Your task to perform on an android device: clear history in the chrome app Image 0: 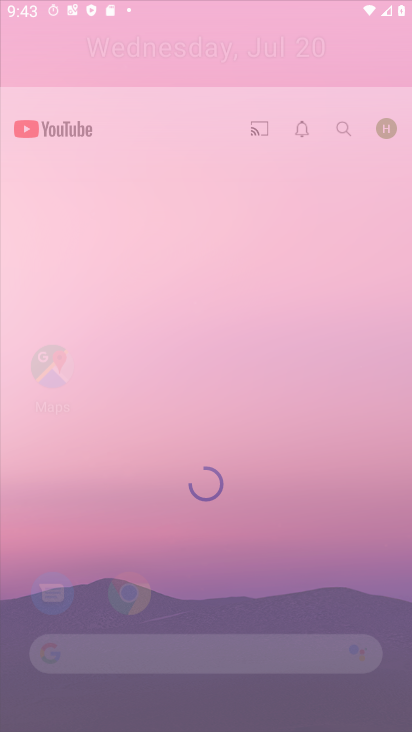
Step 0: click (236, 193)
Your task to perform on an android device: clear history in the chrome app Image 1: 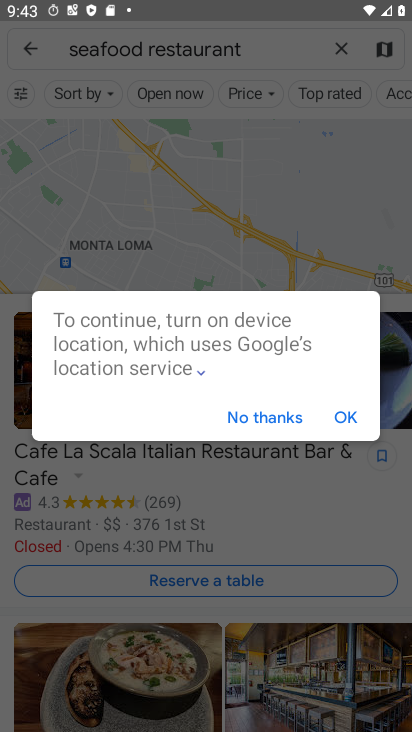
Step 1: click (341, 420)
Your task to perform on an android device: clear history in the chrome app Image 2: 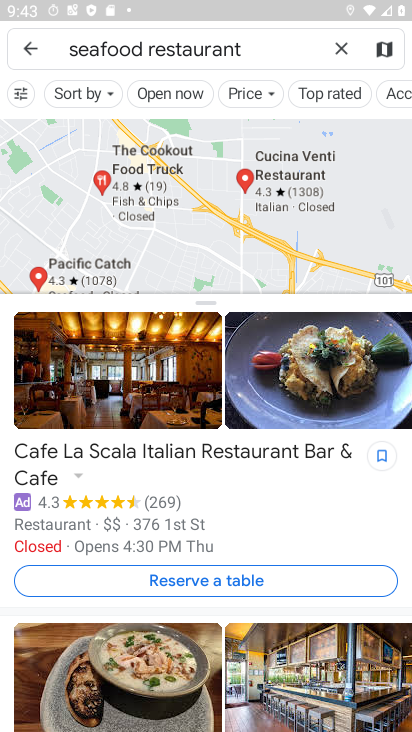
Step 2: press home button
Your task to perform on an android device: clear history in the chrome app Image 3: 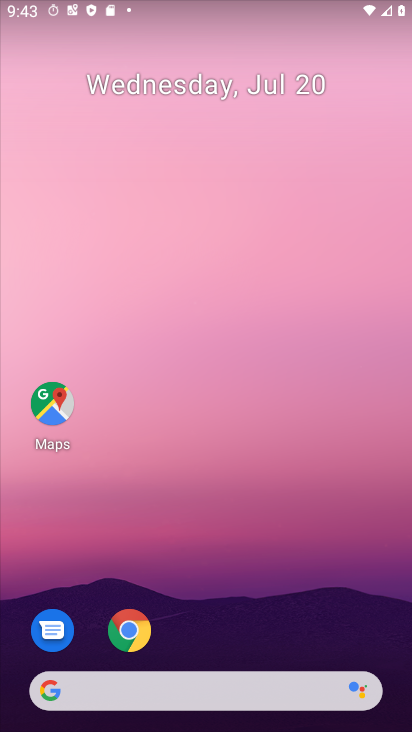
Step 3: drag from (206, 637) to (255, 205)
Your task to perform on an android device: clear history in the chrome app Image 4: 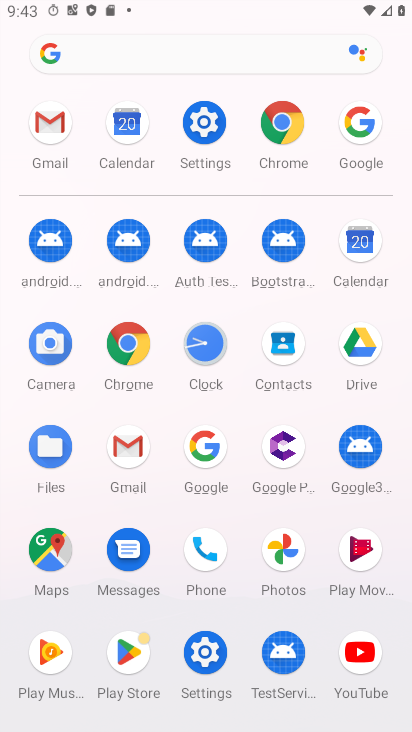
Step 4: click (129, 362)
Your task to perform on an android device: clear history in the chrome app Image 5: 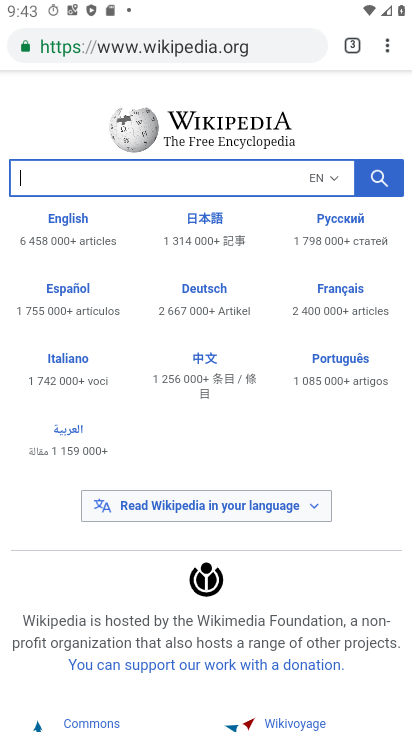
Step 5: click (387, 42)
Your task to perform on an android device: clear history in the chrome app Image 6: 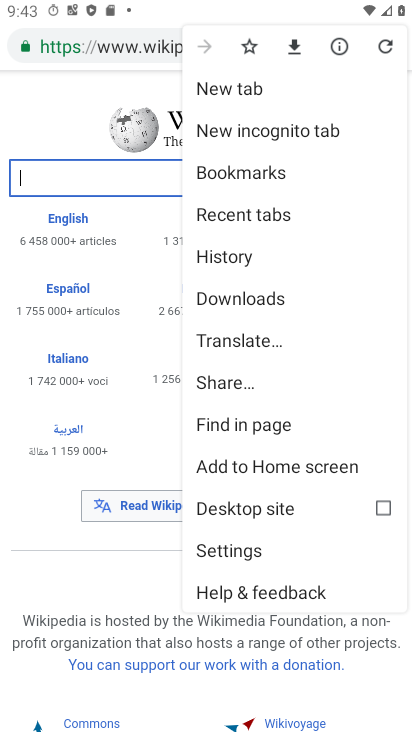
Step 6: click (231, 255)
Your task to perform on an android device: clear history in the chrome app Image 7: 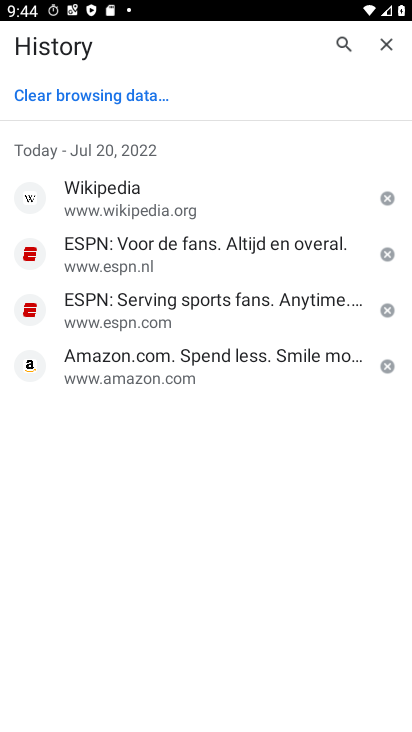
Step 7: click (113, 95)
Your task to perform on an android device: clear history in the chrome app Image 8: 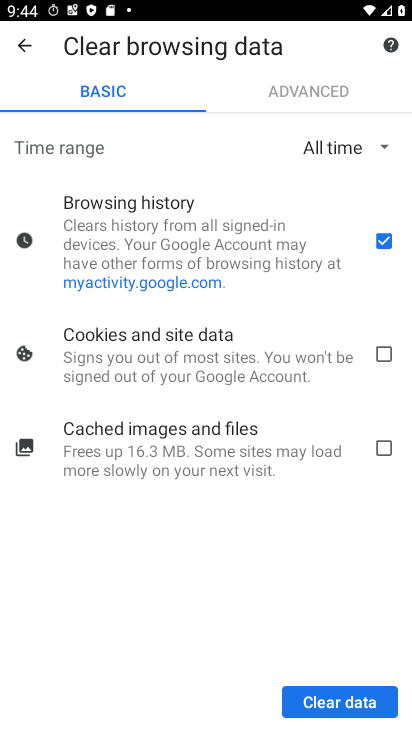
Step 8: click (316, 698)
Your task to perform on an android device: clear history in the chrome app Image 9: 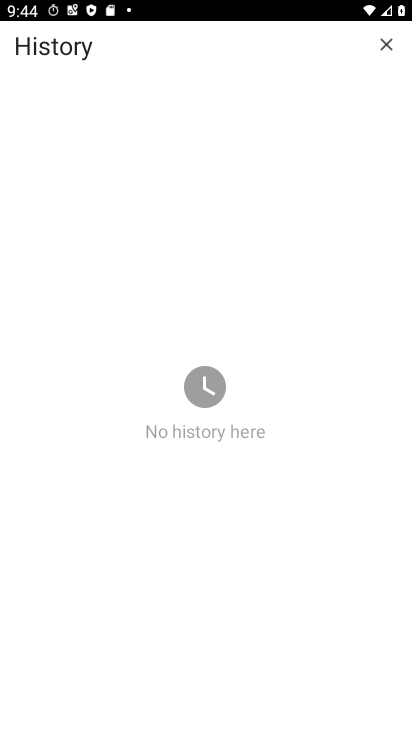
Step 9: task complete